Your task to perform on an android device: Search for amazon basics triple a on costco, select the first entry, and add it to the cart. Image 0: 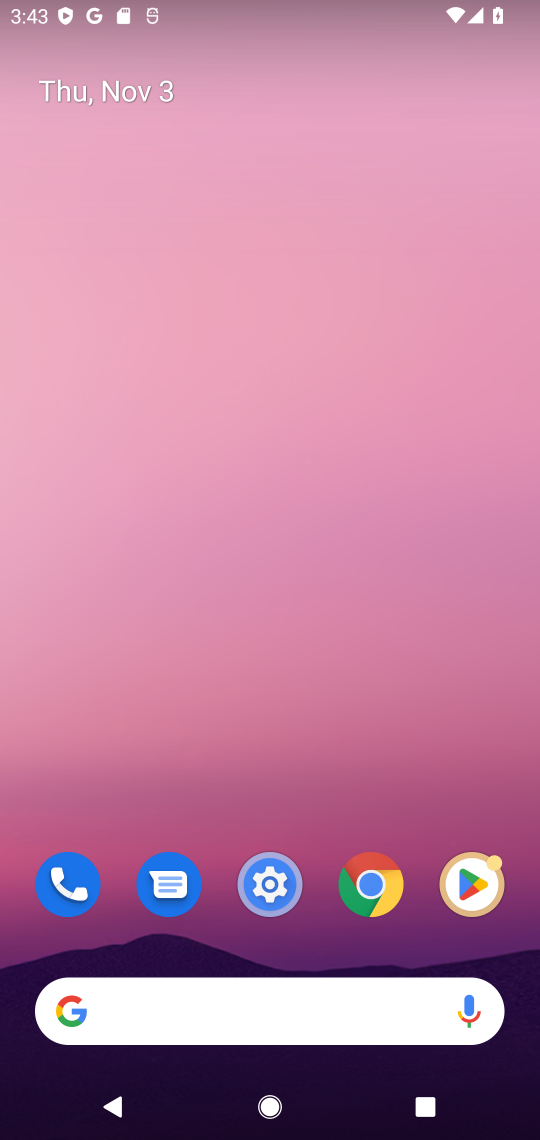
Step 0: press home button
Your task to perform on an android device: Search for amazon basics triple a on costco, select the first entry, and add it to the cart. Image 1: 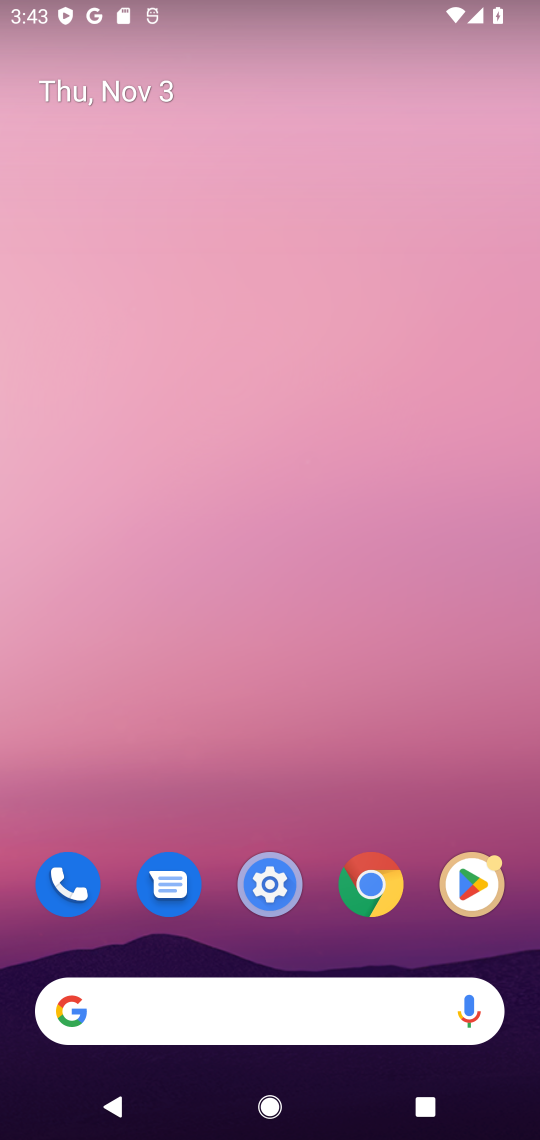
Step 1: click (96, 1013)
Your task to perform on an android device: Search for amazon basics triple a on costco, select the first entry, and add it to the cart. Image 2: 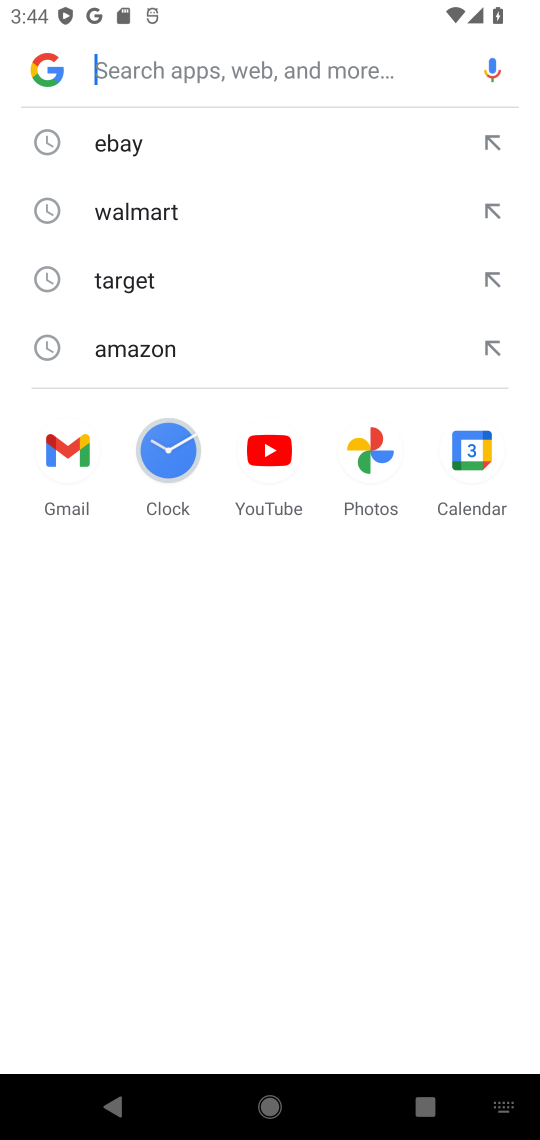
Step 2: type "costco"
Your task to perform on an android device: Search for amazon basics triple a on costco, select the first entry, and add it to the cart. Image 3: 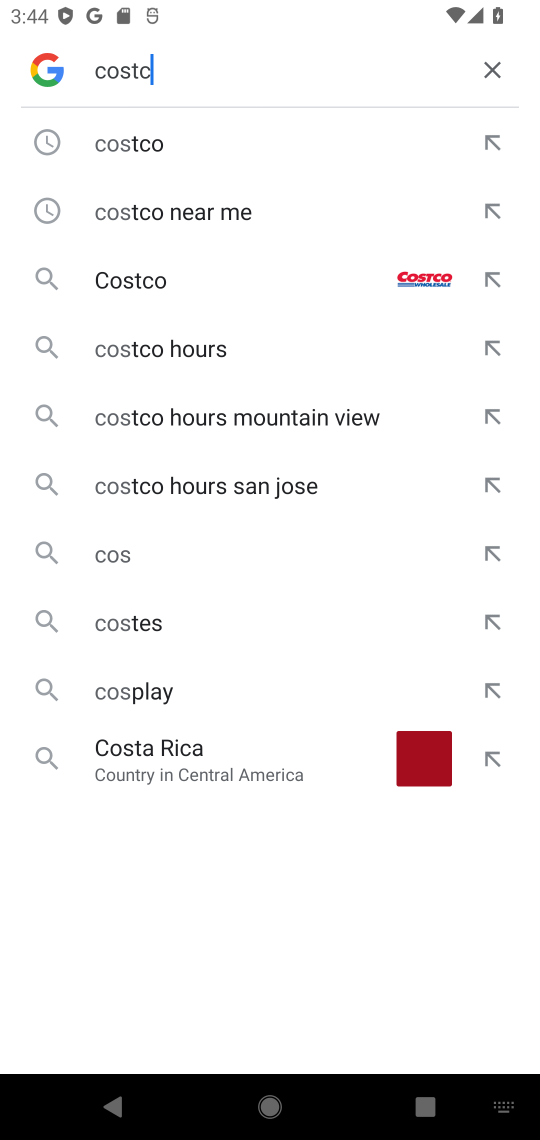
Step 3: press enter
Your task to perform on an android device: Search for amazon basics triple a on costco, select the first entry, and add it to the cart. Image 4: 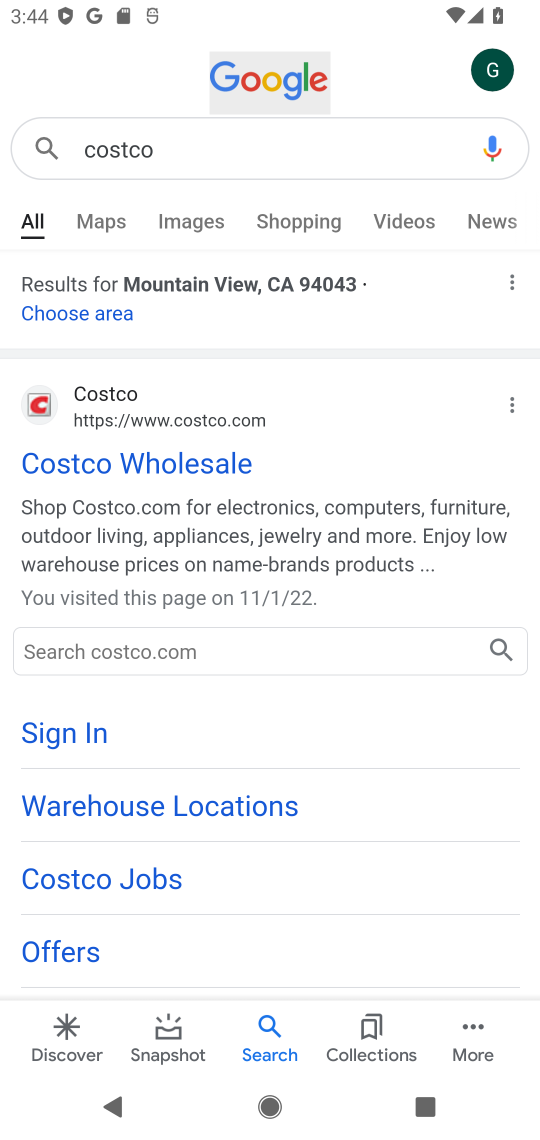
Step 4: click (176, 461)
Your task to perform on an android device: Search for amazon basics triple a on costco, select the first entry, and add it to the cart. Image 5: 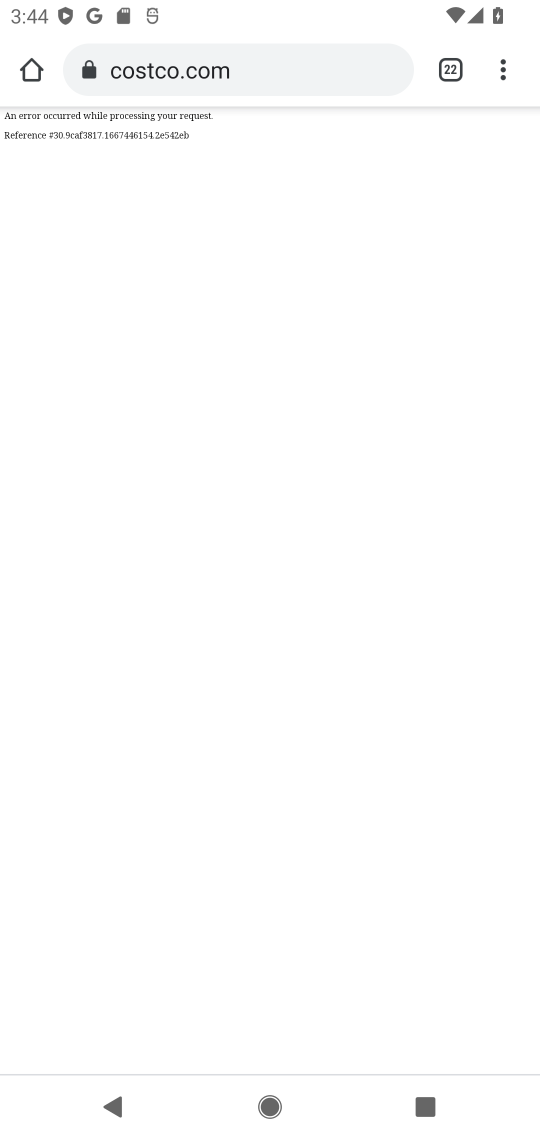
Step 5: task complete